Your task to perform on an android device: open app "Google Maps" Image 0: 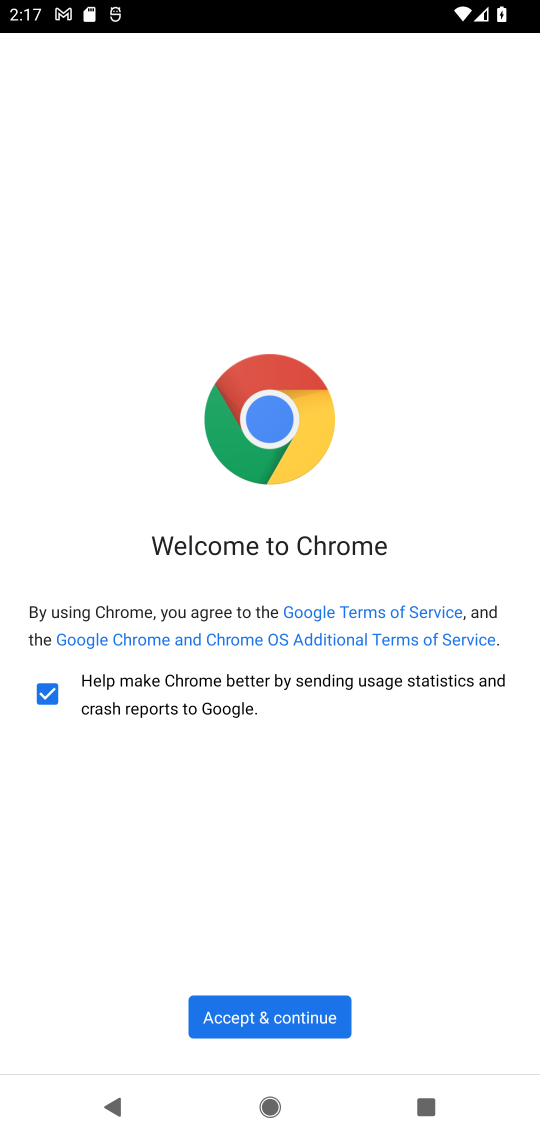
Step 0: press home button
Your task to perform on an android device: open app "Google Maps" Image 1: 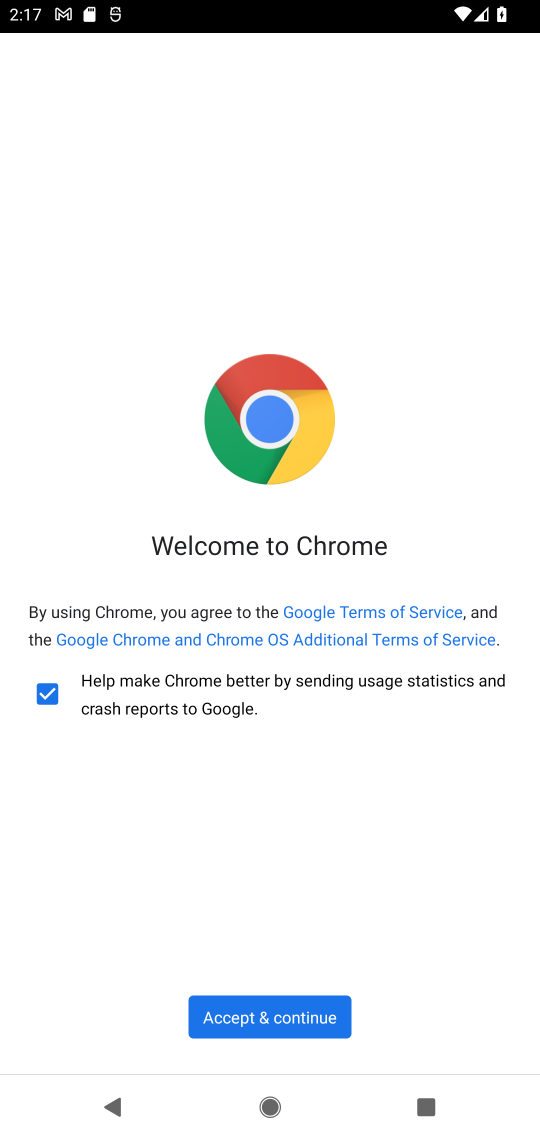
Step 1: task complete